Your task to perform on an android device: Do I have any events tomorrow? Image 0: 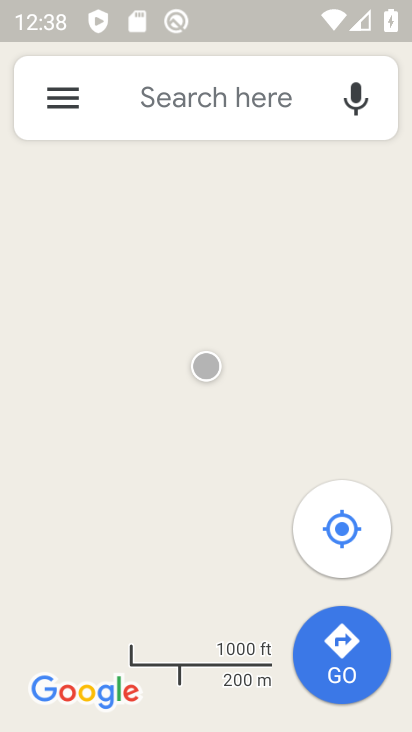
Step 0: press home button
Your task to perform on an android device: Do I have any events tomorrow? Image 1: 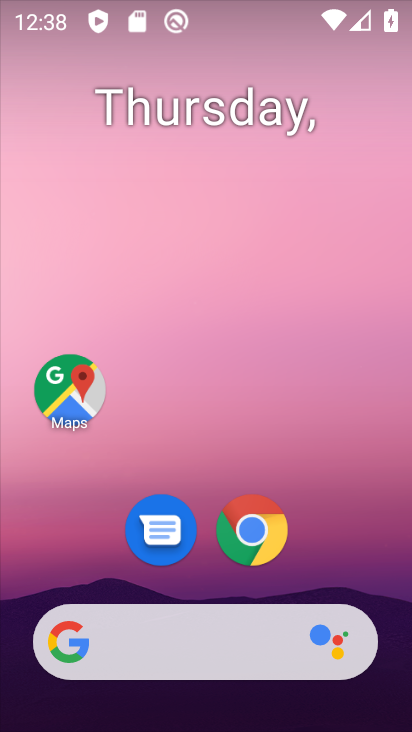
Step 1: drag from (197, 520) to (192, 0)
Your task to perform on an android device: Do I have any events tomorrow? Image 2: 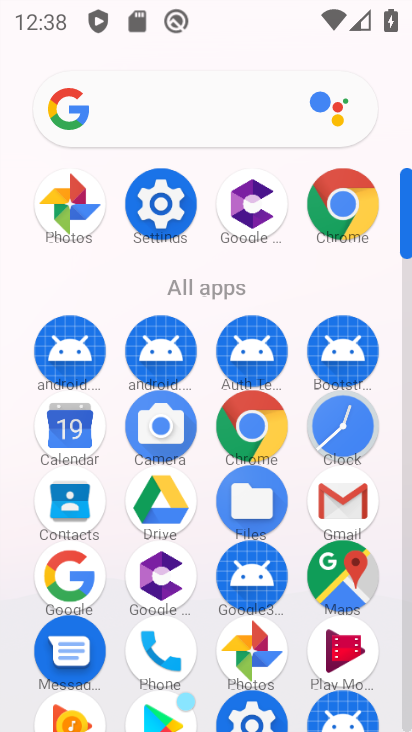
Step 2: click (69, 439)
Your task to perform on an android device: Do I have any events tomorrow? Image 3: 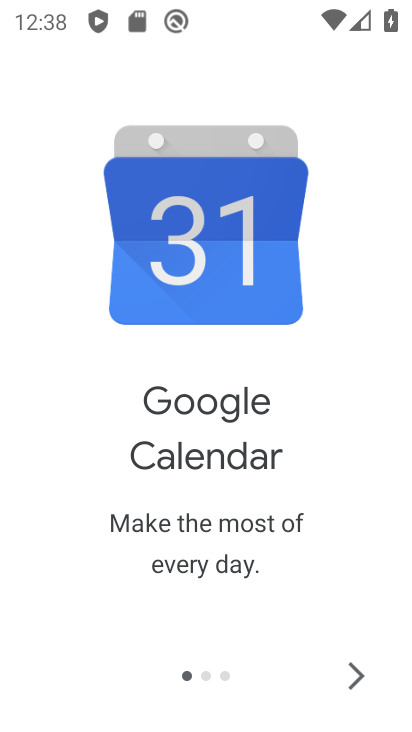
Step 3: click (351, 672)
Your task to perform on an android device: Do I have any events tomorrow? Image 4: 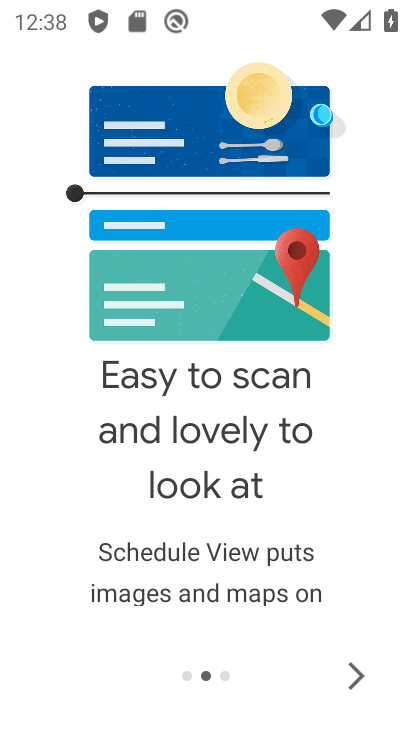
Step 4: click (351, 672)
Your task to perform on an android device: Do I have any events tomorrow? Image 5: 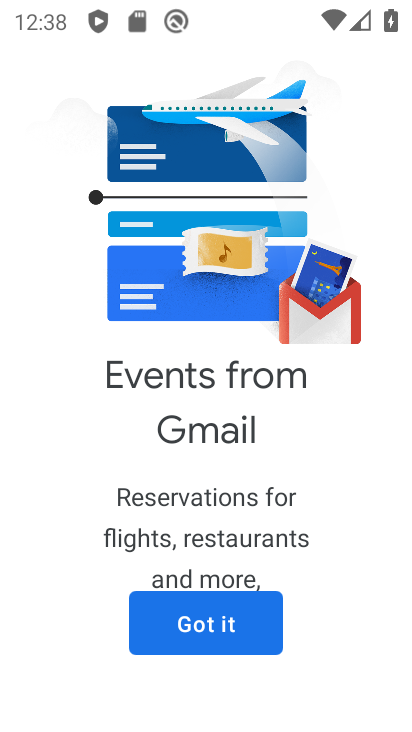
Step 5: click (220, 631)
Your task to perform on an android device: Do I have any events tomorrow? Image 6: 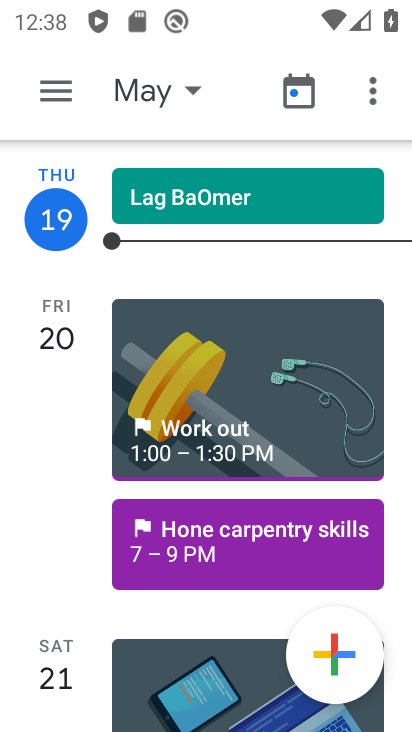
Step 6: click (50, 322)
Your task to perform on an android device: Do I have any events tomorrow? Image 7: 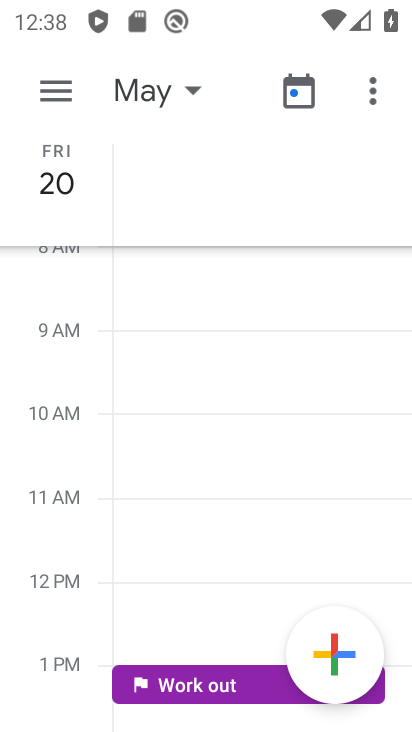
Step 7: task complete